Your task to perform on an android device: Open wifi settings Image 0: 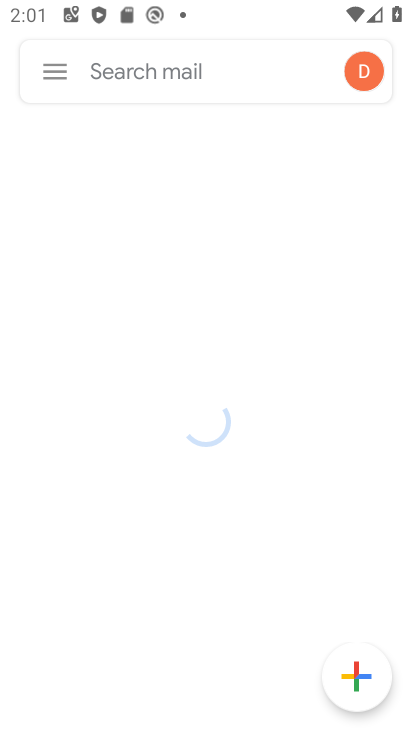
Step 0: press back button
Your task to perform on an android device: Open wifi settings Image 1: 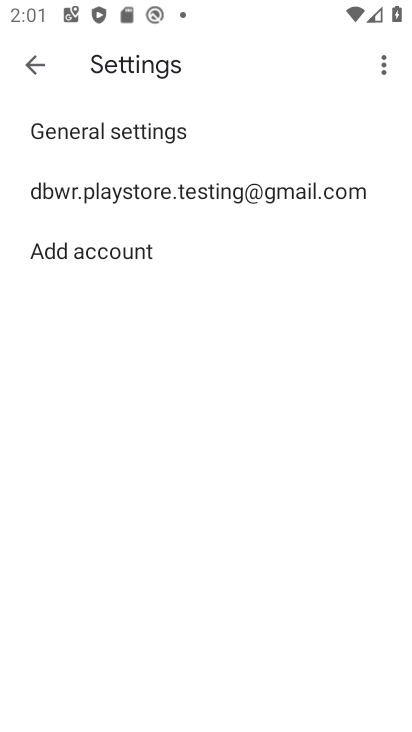
Step 1: press home button
Your task to perform on an android device: Open wifi settings Image 2: 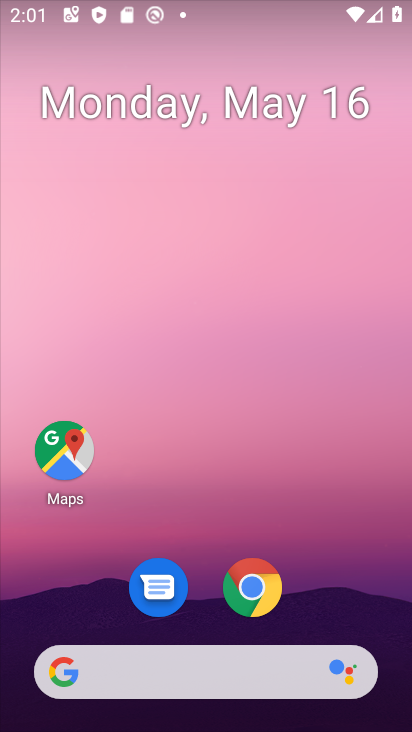
Step 2: drag from (205, 54) to (223, 24)
Your task to perform on an android device: Open wifi settings Image 3: 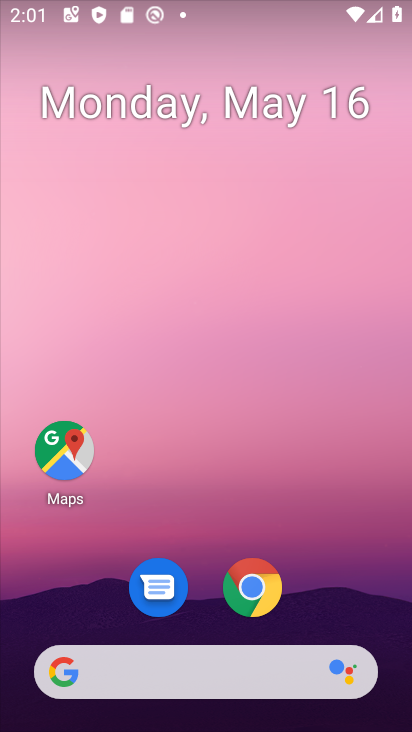
Step 3: drag from (168, 479) to (129, 200)
Your task to perform on an android device: Open wifi settings Image 4: 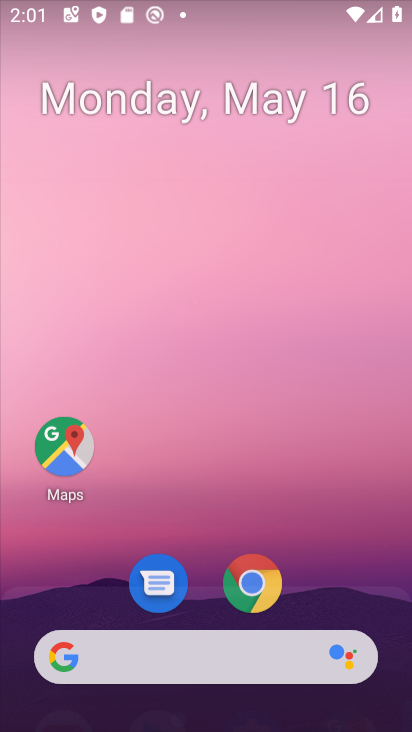
Step 4: drag from (291, 530) to (92, 1)
Your task to perform on an android device: Open wifi settings Image 5: 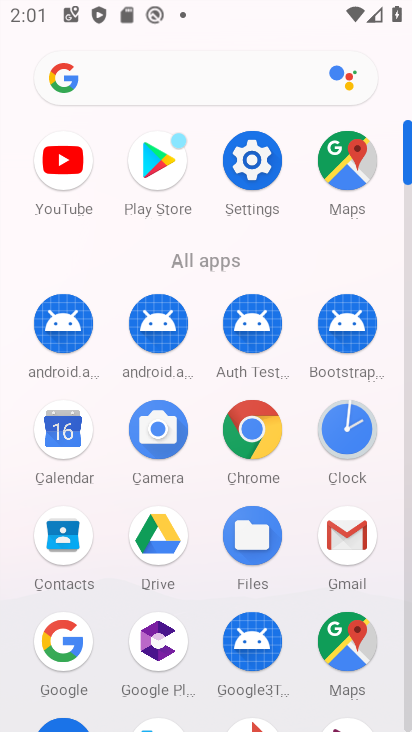
Step 5: drag from (278, 477) to (251, 18)
Your task to perform on an android device: Open wifi settings Image 6: 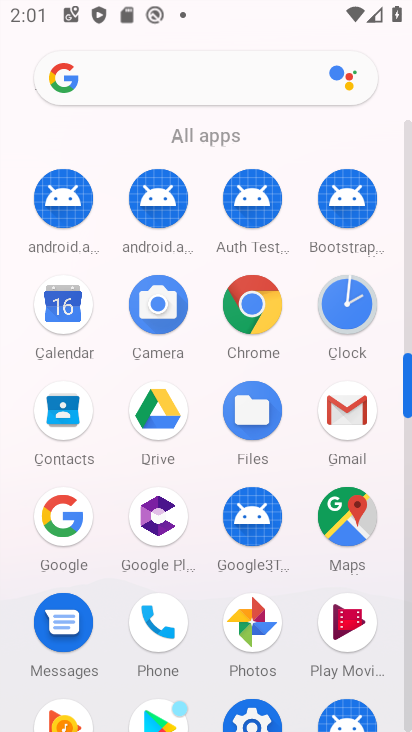
Step 6: click (332, 514)
Your task to perform on an android device: Open wifi settings Image 7: 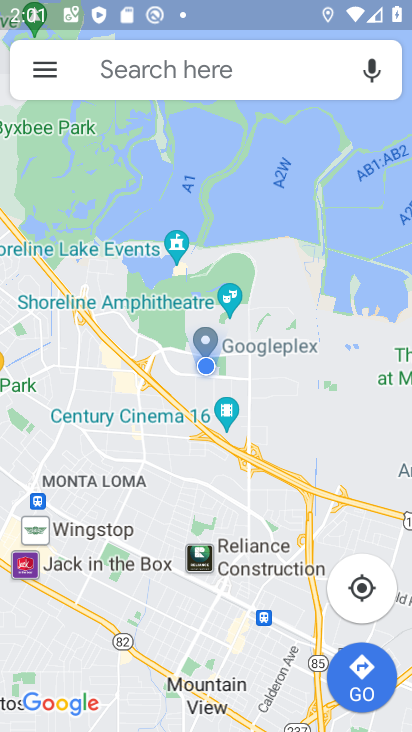
Step 7: press back button
Your task to perform on an android device: Open wifi settings Image 8: 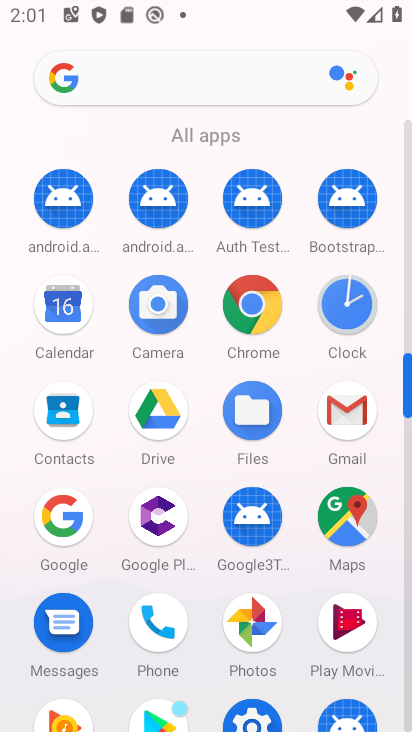
Step 8: click (249, 716)
Your task to perform on an android device: Open wifi settings Image 9: 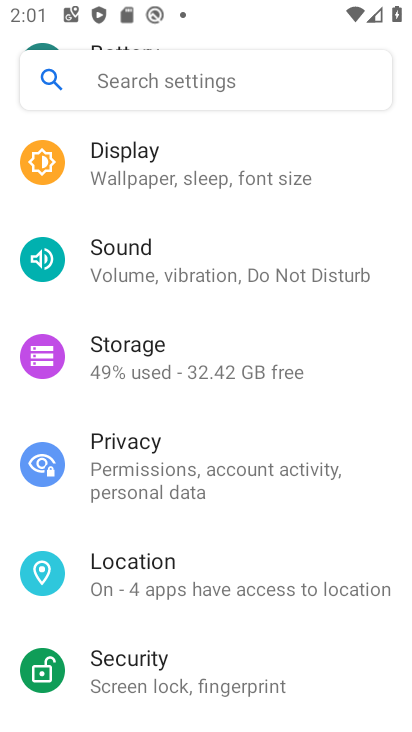
Step 9: drag from (183, 219) to (185, 586)
Your task to perform on an android device: Open wifi settings Image 10: 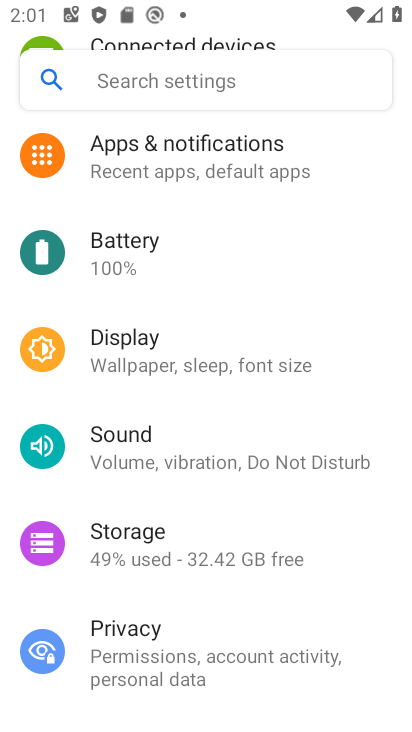
Step 10: drag from (189, 227) to (216, 565)
Your task to perform on an android device: Open wifi settings Image 11: 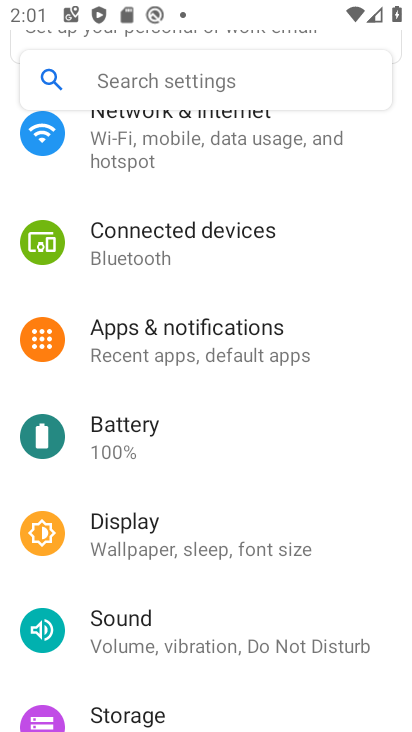
Step 11: drag from (187, 305) to (252, 499)
Your task to perform on an android device: Open wifi settings Image 12: 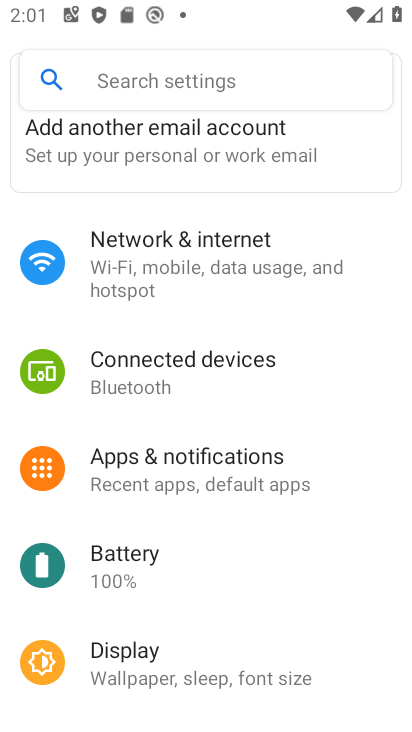
Step 12: drag from (223, 569) to (305, 607)
Your task to perform on an android device: Open wifi settings Image 13: 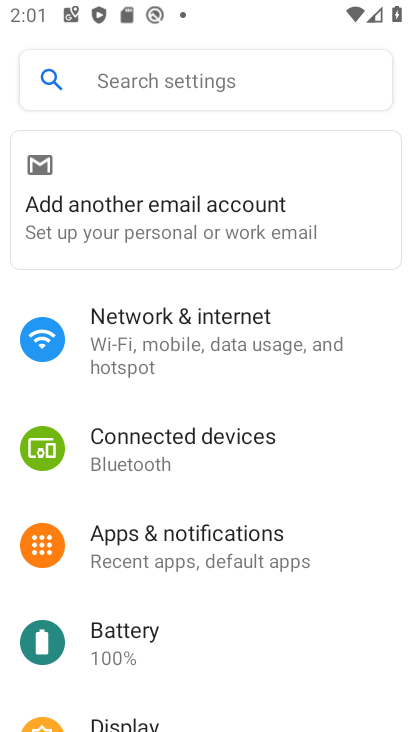
Step 13: click (162, 246)
Your task to perform on an android device: Open wifi settings Image 14: 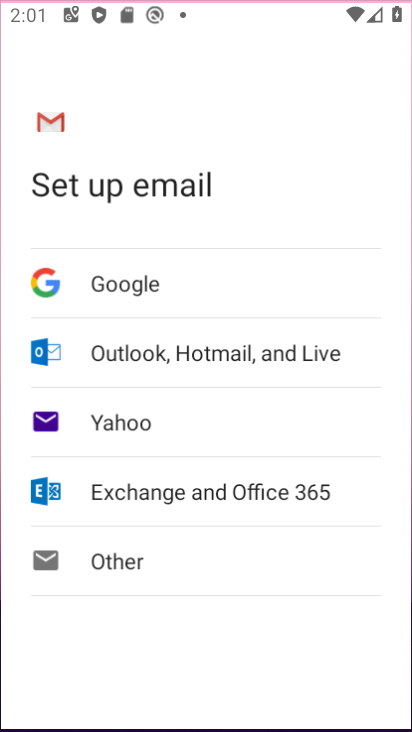
Step 14: click (176, 348)
Your task to perform on an android device: Open wifi settings Image 15: 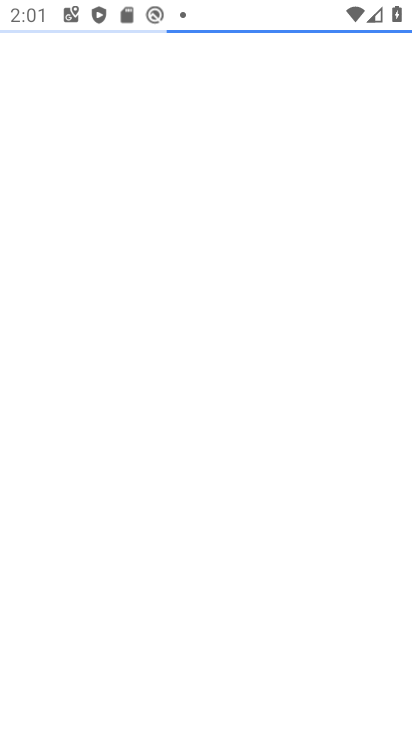
Step 15: task complete